Your task to perform on an android device: toggle priority inbox in the gmail app Image 0: 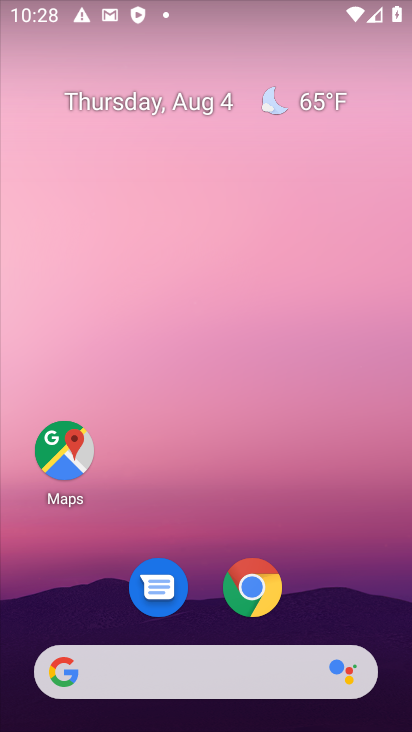
Step 0: drag from (160, 503) to (167, 227)
Your task to perform on an android device: toggle priority inbox in the gmail app Image 1: 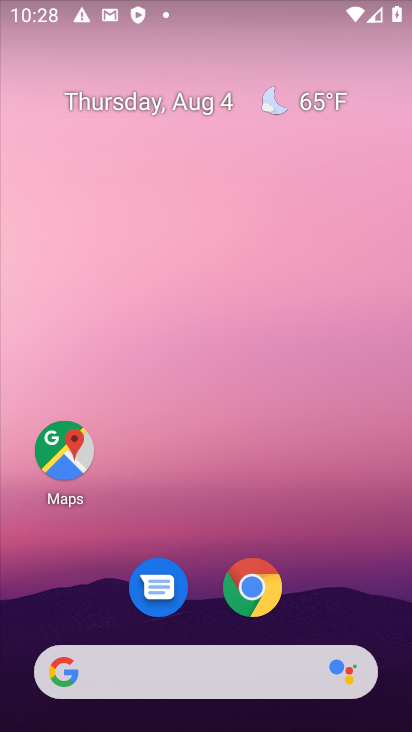
Step 1: drag from (218, 601) to (190, 121)
Your task to perform on an android device: toggle priority inbox in the gmail app Image 2: 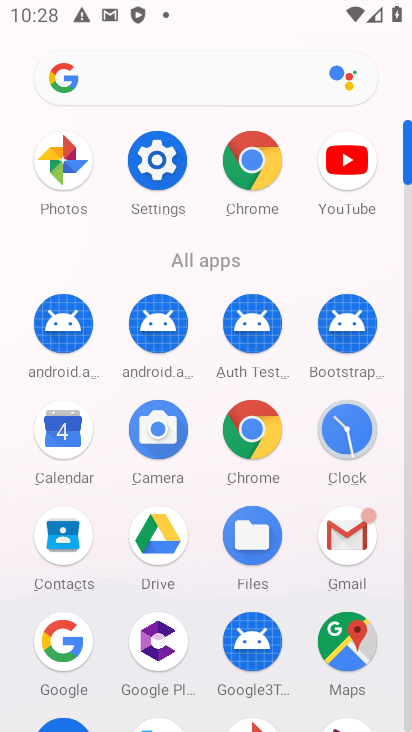
Step 2: click (342, 526)
Your task to perform on an android device: toggle priority inbox in the gmail app Image 3: 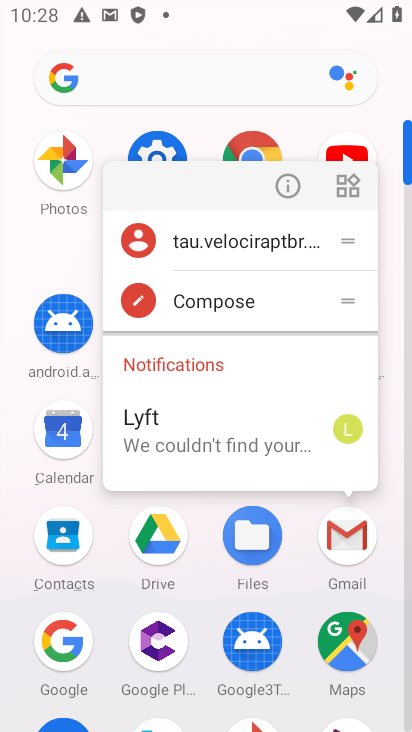
Step 3: click (353, 533)
Your task to perform on an android device: toggle priority inbox in the gmail app Image 4: 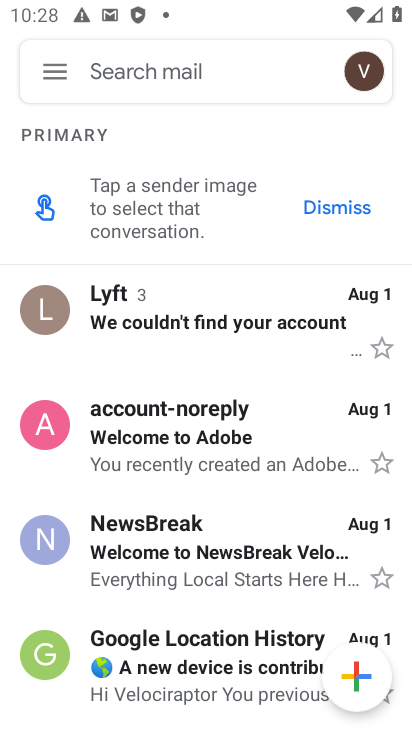
Step 4: click (58, 69)
Your task to perform on an android device: toggle priority inbox in the gmail app Image 5: 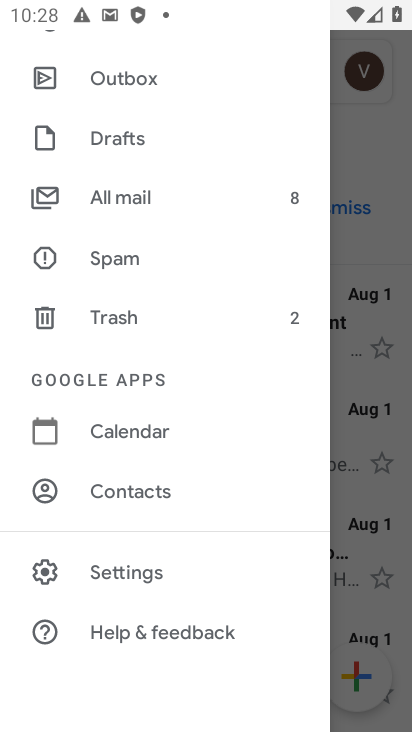
Step 5: click (170, 571)
Your task to perform on an android device: toggle priority inbox in the gmail app Image 6: 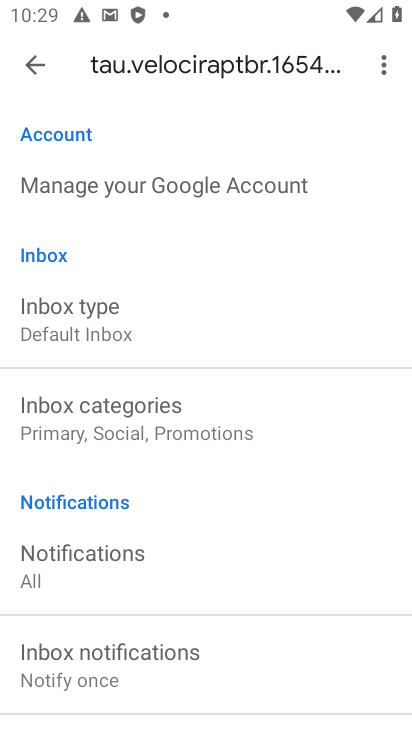
Step 6: click (111, 340)
Your task to perform on an android device: toggle priority inbox in the gmail app Image 7: 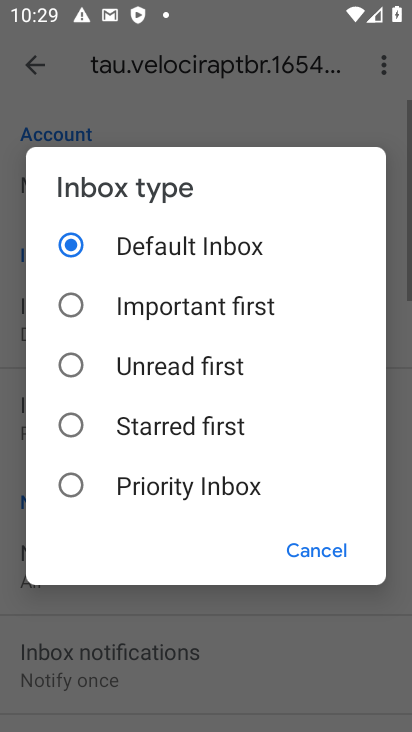
Step 7: click (153, 480)
Your task to perform on an android device: toggle priority inbox in the gmail app Image 8: 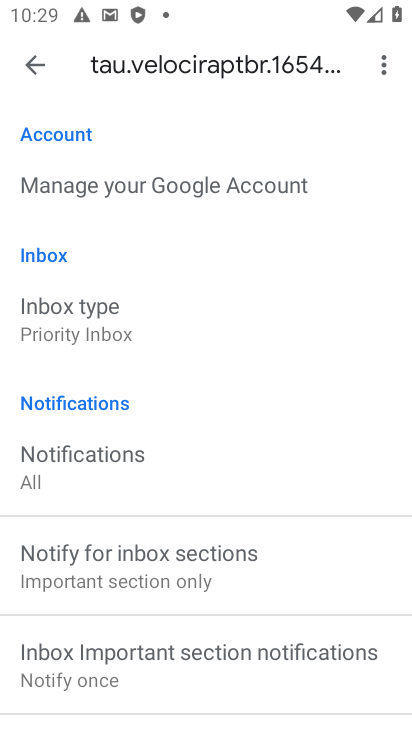
Step 8: task complete